Your task to perform on an android device: open app "Paramount+ | Peak Streaming" (install if not already installed) Image 0: 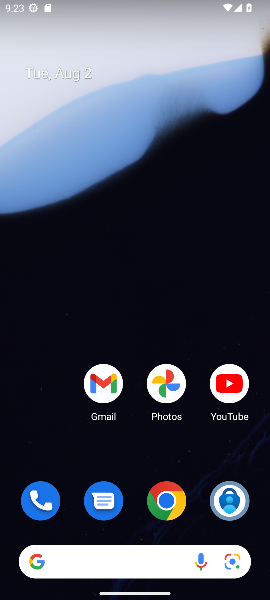
Step 0: drag from (130, 523) to (165, 163)
Your task to perform on an android device: open app "Paramount+ | Peak Streaming" (install if not already installed) Image 1: 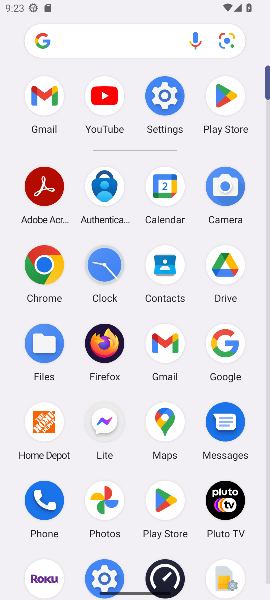
Step 1: click (221, 91)
Your task to perform on an android device: open app "Paramount+ | Peak Streaming" (install if not already installed) Image 2: 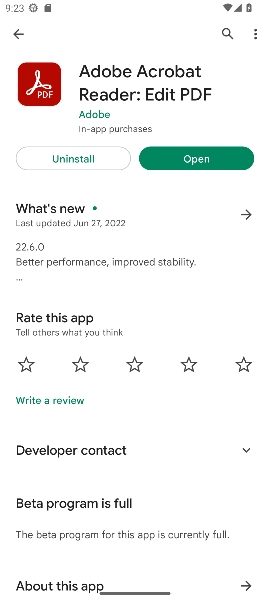
Step 2: drag from (133, 140) to (130, 576)
Your task to perform on an android device: open app "Paramount+ | Peak Streaming" (install if not already installed) Image 3: 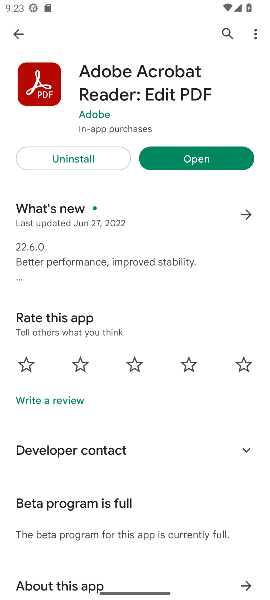
Step 3: click (223, 30)
Your task to perform on an android device: open app "Paramount+ | Peak Streaming" (install if not already installed) Image 4: 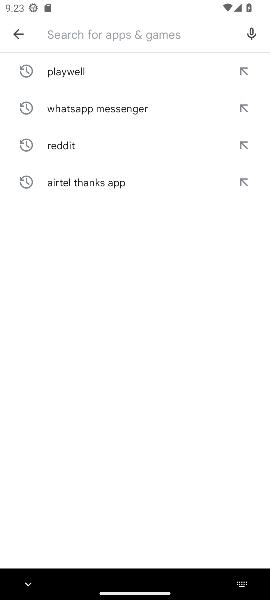
Step 4: type "Paramount+ | Peak Streaming"
Your task to perform on an android device: open app "Paramount+ | Peak Streaming" (install if not already installed) Image 5: 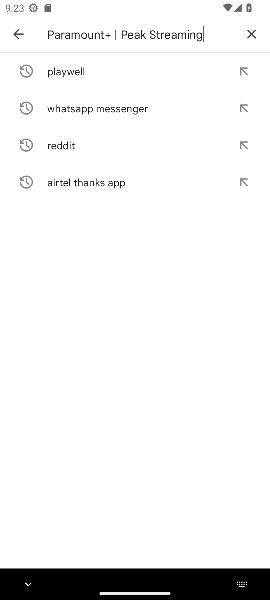
Step 5: type ""
Your task to perform on an android device: open app "Paramount+ | Peak Streaming" (install if not already installed) Image 6: 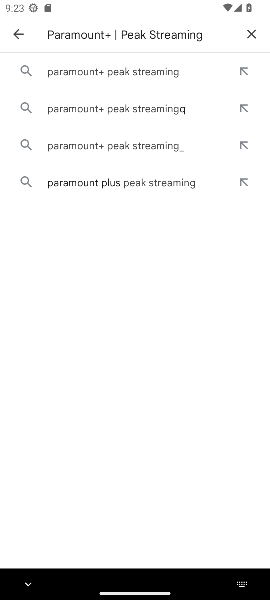
Step 6: click (112, 69)
Your task to perform on an android device: open app "Paramount+ | Peak Streaming" (install if not already installed) Image 7: 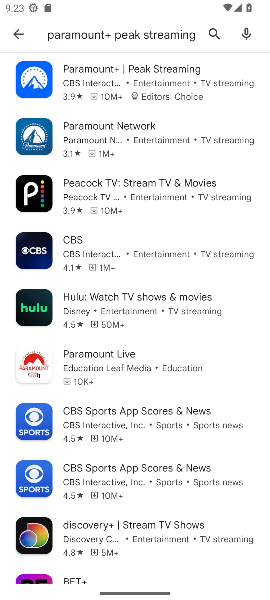
Step 7: click (95, 77)
Your task to perform on an android device: open app "Paramount+ | Peak Streaming" (install if not already installed) Image 8: 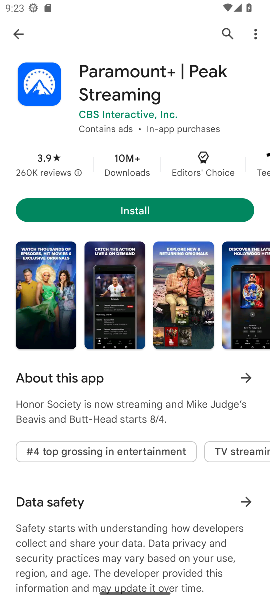
Step 8: task complete